Your task to perform on an android device: clear history in the chrome app Image 0: 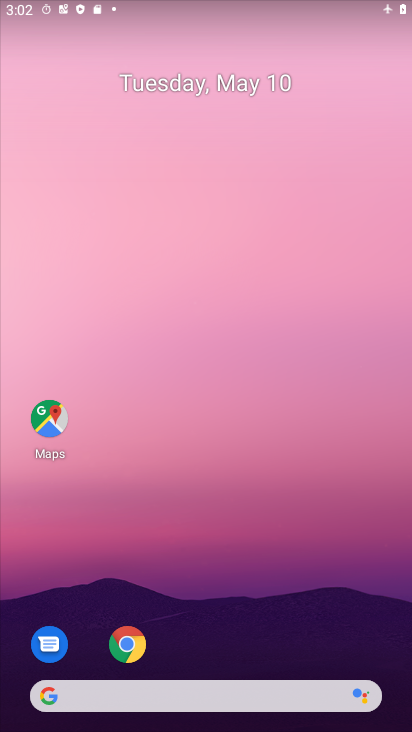
Step 0: drag from (245, 614) to (237, 216)
Your task to perform on an android device: clear history in the chrome app Image 1: 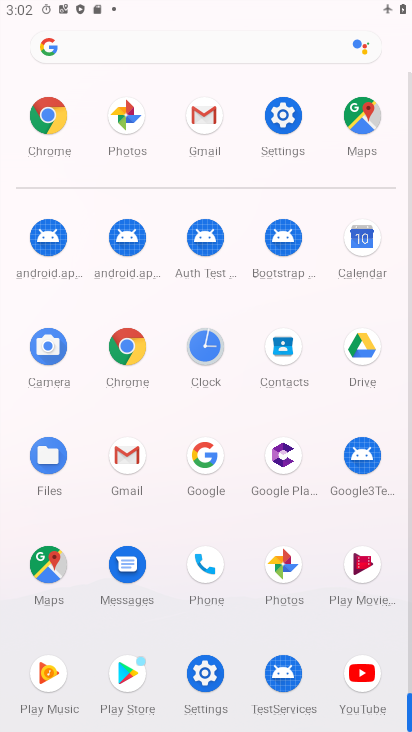
Step 1: click (119, 352)
Your task to perform on an android device: clear history in the chrome app Image 2: 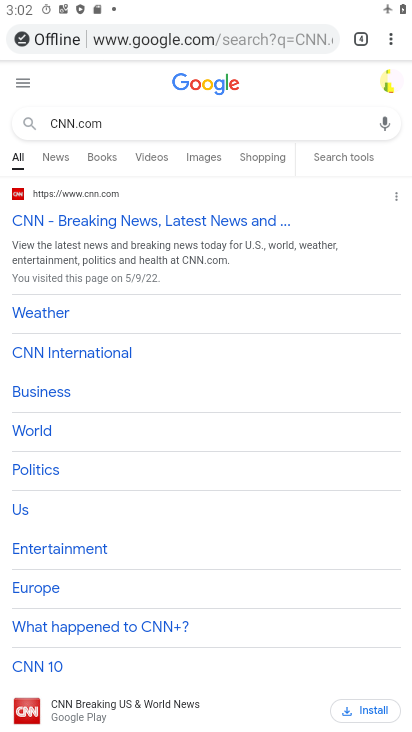
Step 2: click (388, 42)
Your task to perform on an android device: clear history in the chrome app Image 3: 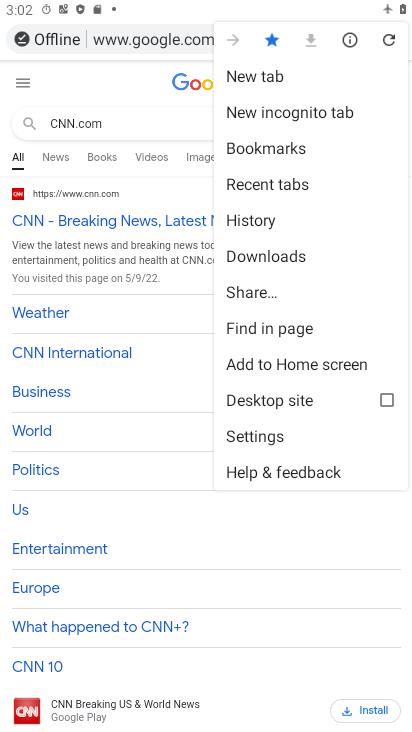
Step 3: click (284, 217)
Your task to perform on an android device: clear history in the chrome app Image 4: 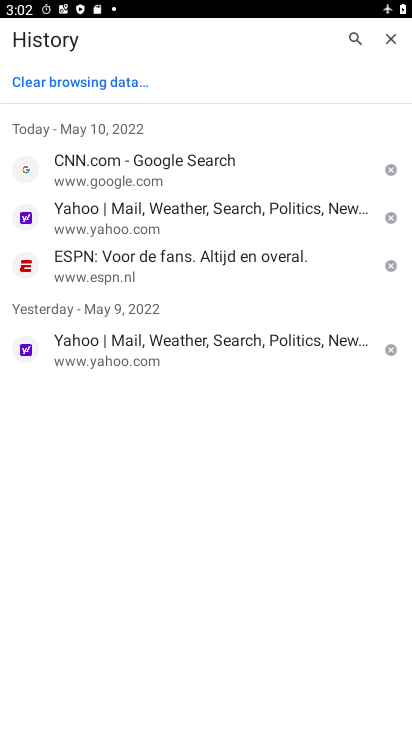
Step 4: click (76, 91)
Your task to perform on an android device: clear history in the chrome app Image 5: 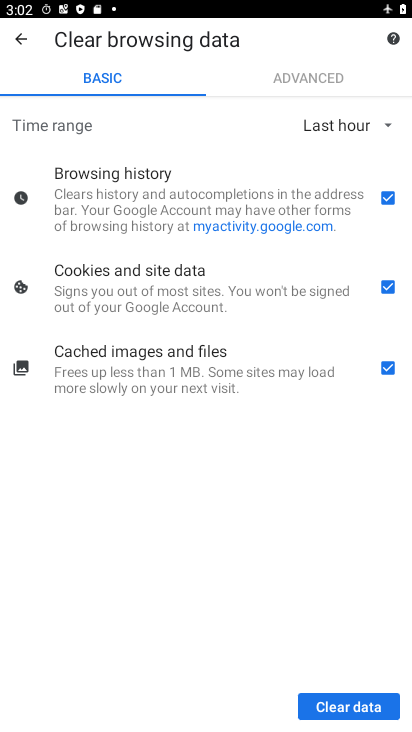
Step 5: click (393, 702)
Your task to perform on an android device: clear history in the chrome app Image 6: 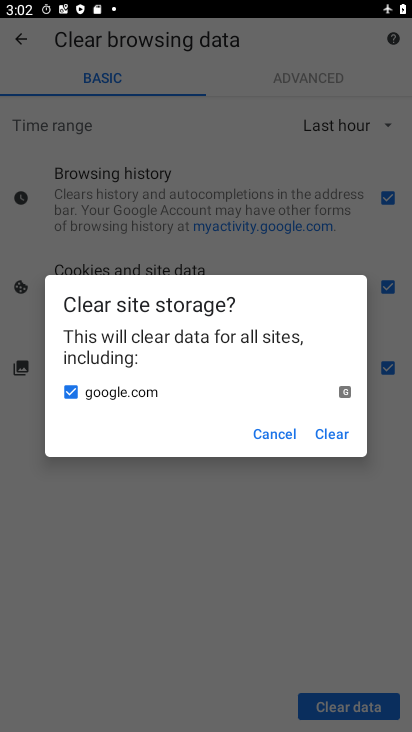
Step 6: click (346, 438)
Your task to perform on an android device: clear history in the chrome app Image 7: 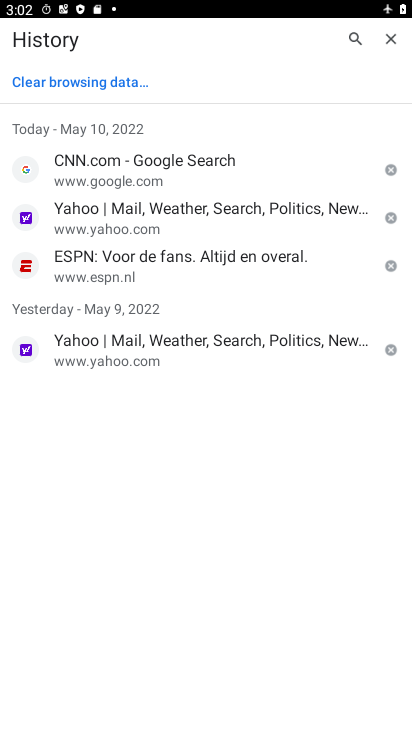
Step 7: click (164, 86)
Your task to perform on an android device: clear history in the chrome app Image 8: 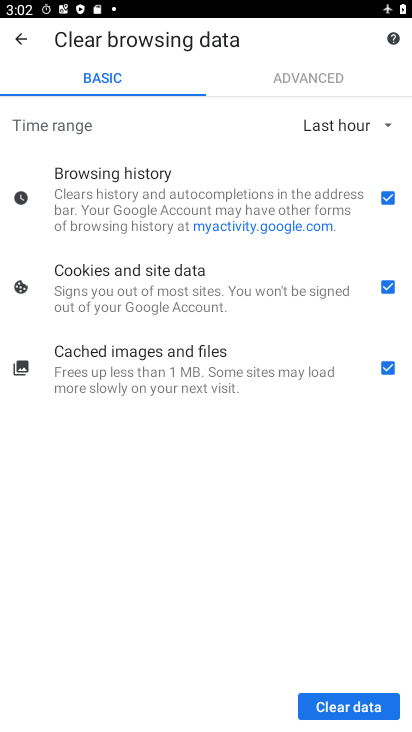
Step 8: click (332, 713)
Your task to perform on an android device: clear history in the chrome app Image 9: 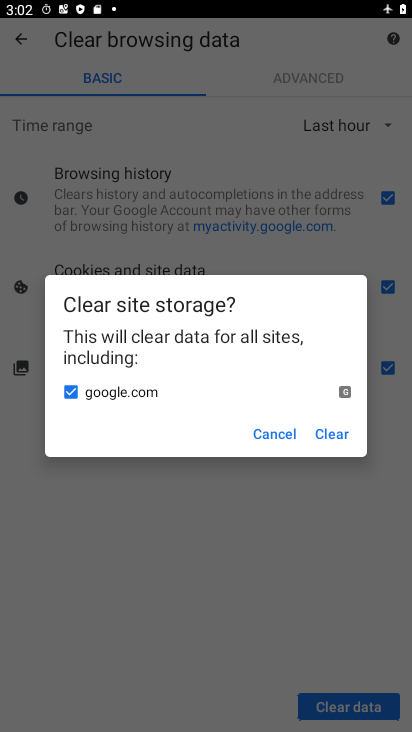
Step 9: click (337, 444)
Your task to perform on an android device: clear history in the chrome app Image 10: 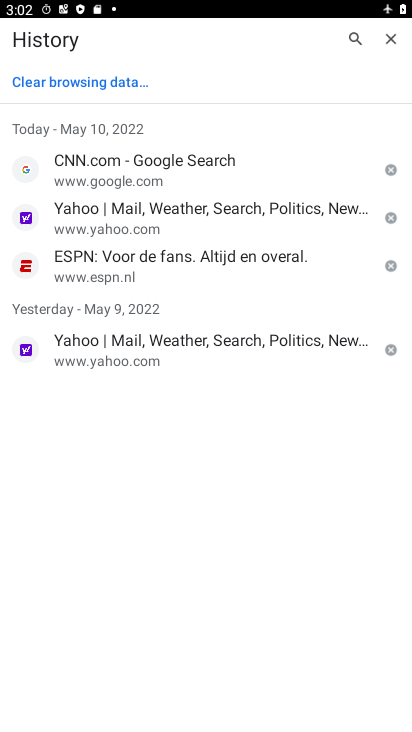
Step 10: click (389, 174)
Your task to perform on an android device: clear history in the chrome app Image 11: 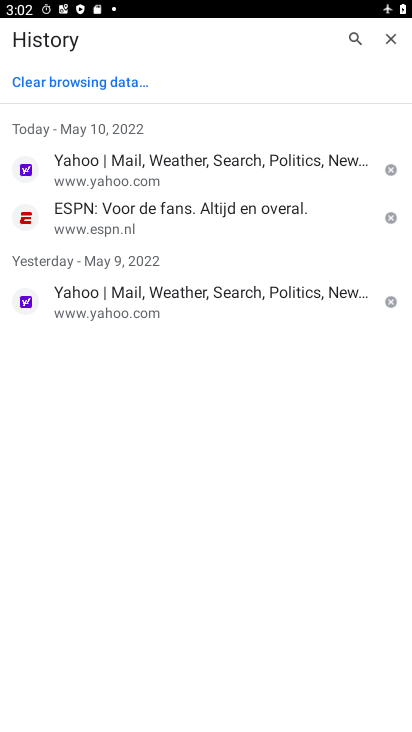
Step 11: click (389, 174)
Your task to perform on an android device: clear history in the chrome app Image 12: 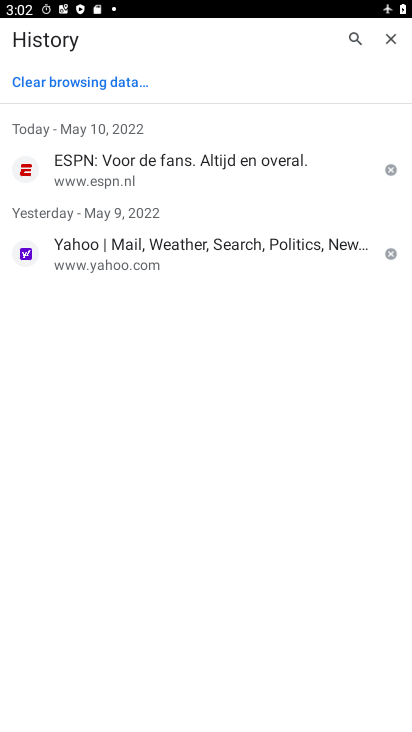
Step 12: click (390, 174)
Your task to perform on an android device: clear history in the chrome app Image 13: 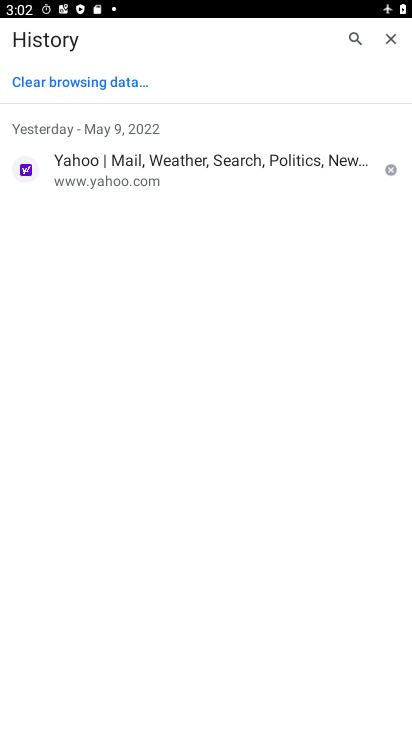
Step 13: click (390, 174)
Your task to perform on an android device: clear history in the chrome app Image 14: 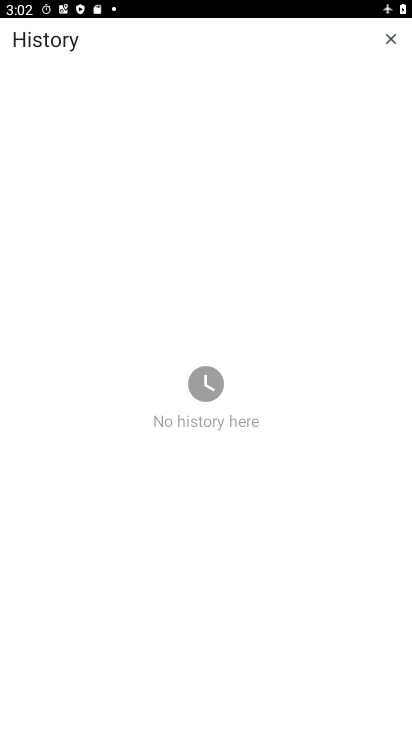
Step 14: task complete